Your task to perform on an android device: Open calendar and show me the first week of next month Image 0: 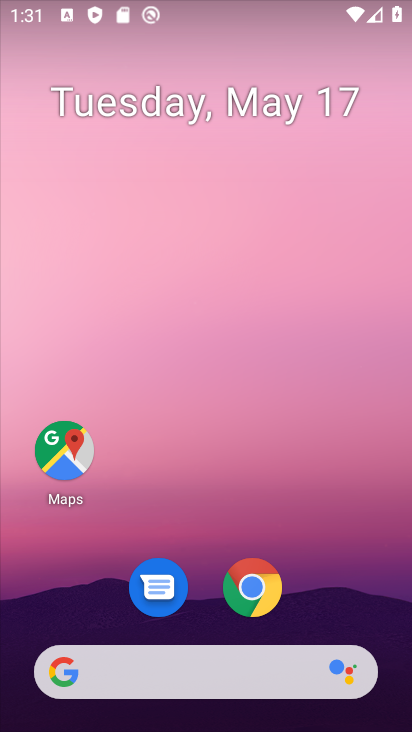
Step 0: drag from (226, 638) to (193, 212)
Your task to perform on an android device: Open calendar and show me the first week of next month Image 1: 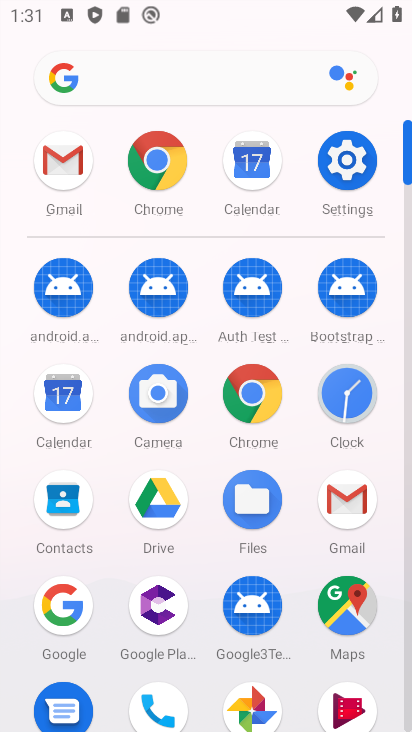
Step 1: click (72, 410)
Your task to perform on an android device: Open calendar and show me the first week of next month Image 2: 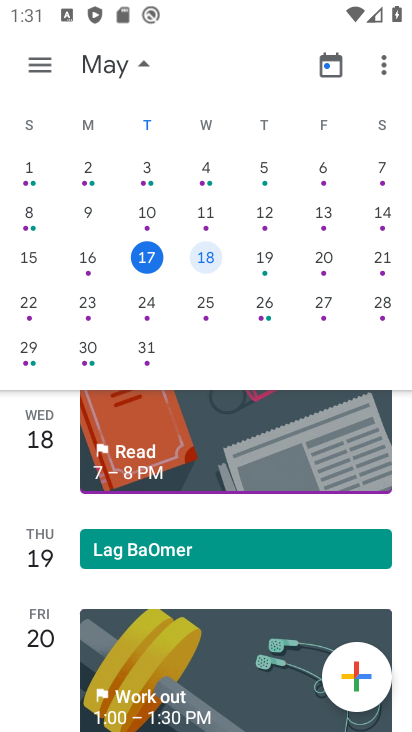
Step 2: click (316, 261)
Your task to perform on an android device: Open calendar and show me the first week of next month Image 3: 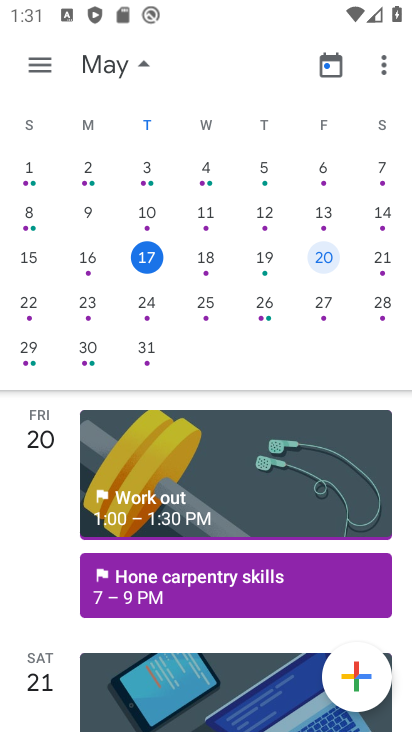
Step 3: drag from (386, 363) to (31, 278)
Your task to perform on an android device: Open calendar and show me the first week of next month Image 4: 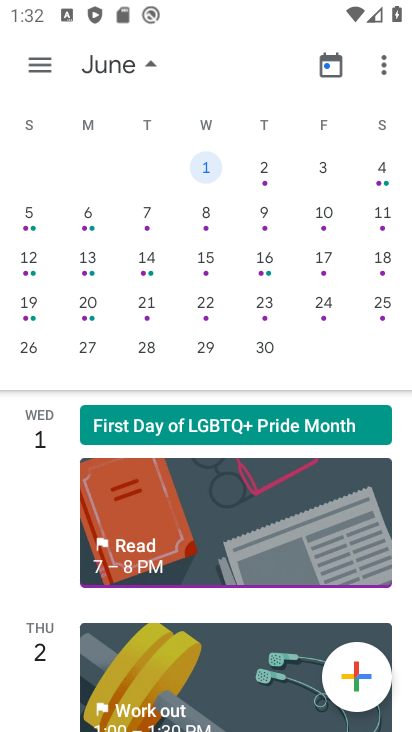
Step 4: click (306, 161)
Your task to perform on an android device: Open calendar and show me the first week of next month Image 5: 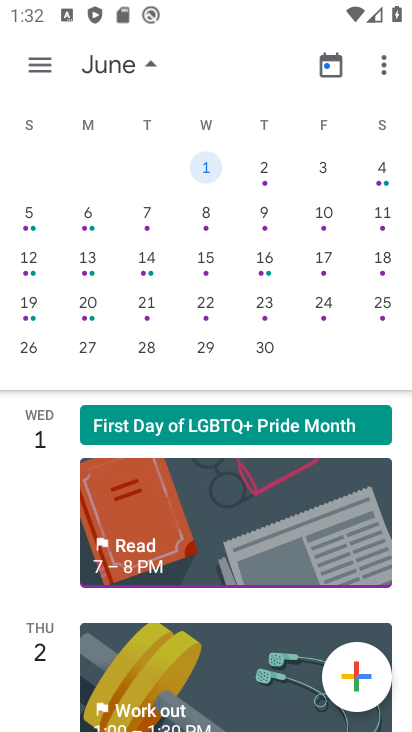
Step 5: click (310, 161)
Your task to perform on an android device: Open calendar and show me the first week of next month Image 6: 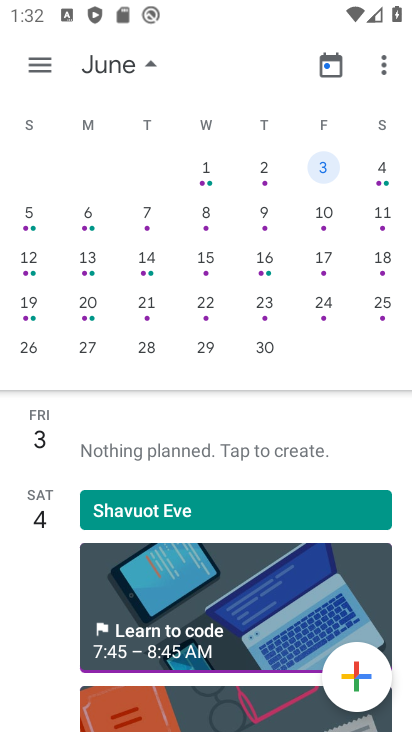
Step 6: task complete